Your task to perform on an android device: turn on bluetooth scan Image 0: 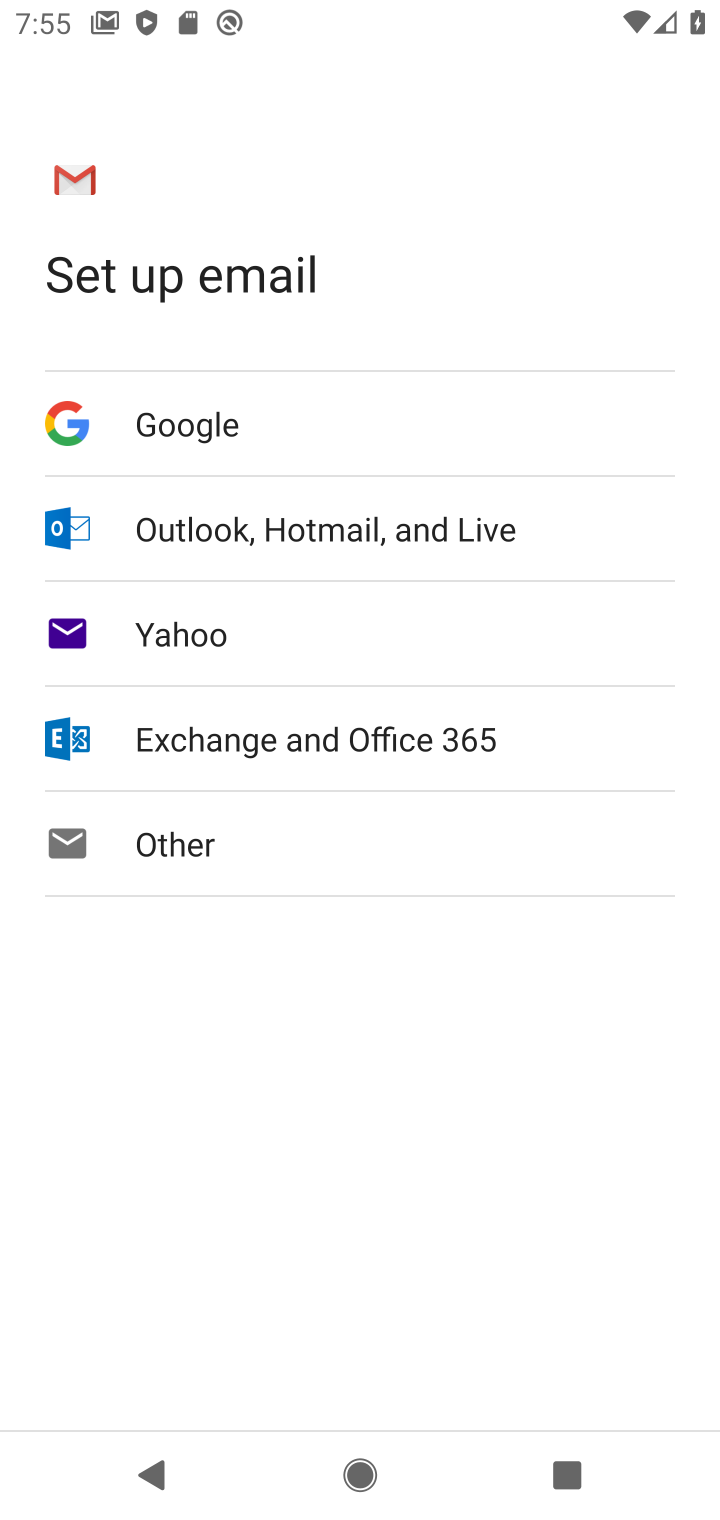
Step 0: press home button
Your task to perform on an android device: turn on bluetooth scan Image 1: 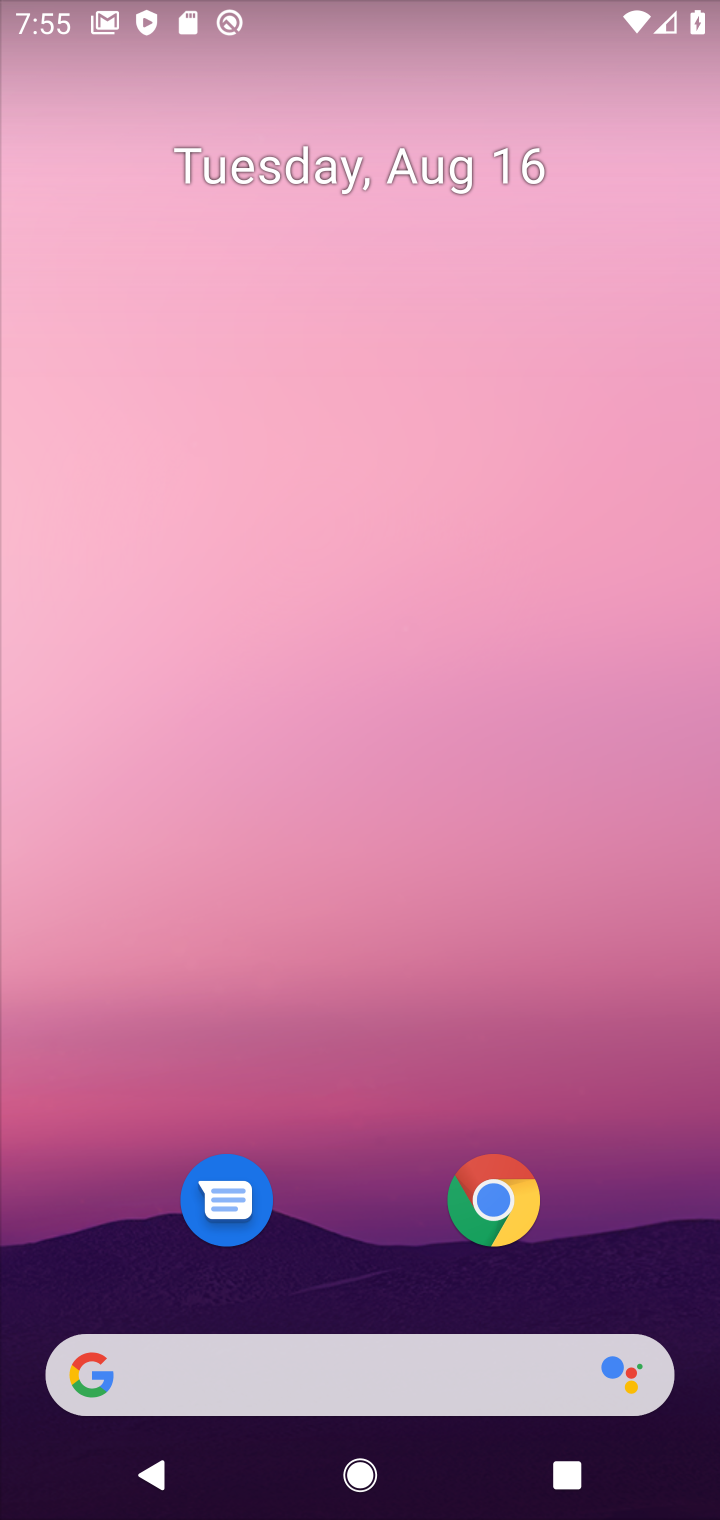
Step 1: drag from (635, 1248) to (574, 117)
Your task to perform on an android device: turn on bluetooth scan Image 2: 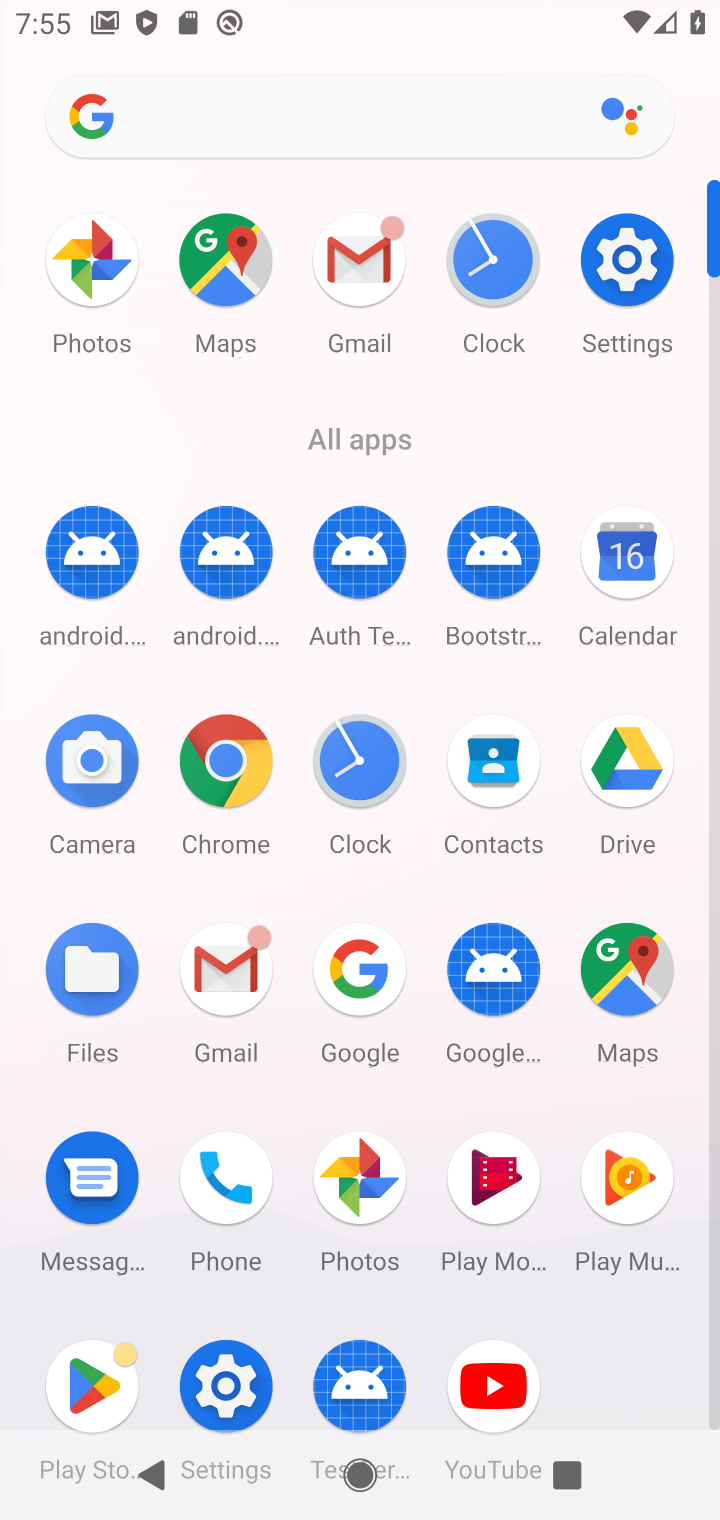
Step 2: click (229, 1385)
Your task to perform on an android device: turn on bluetooth scan Image 3: 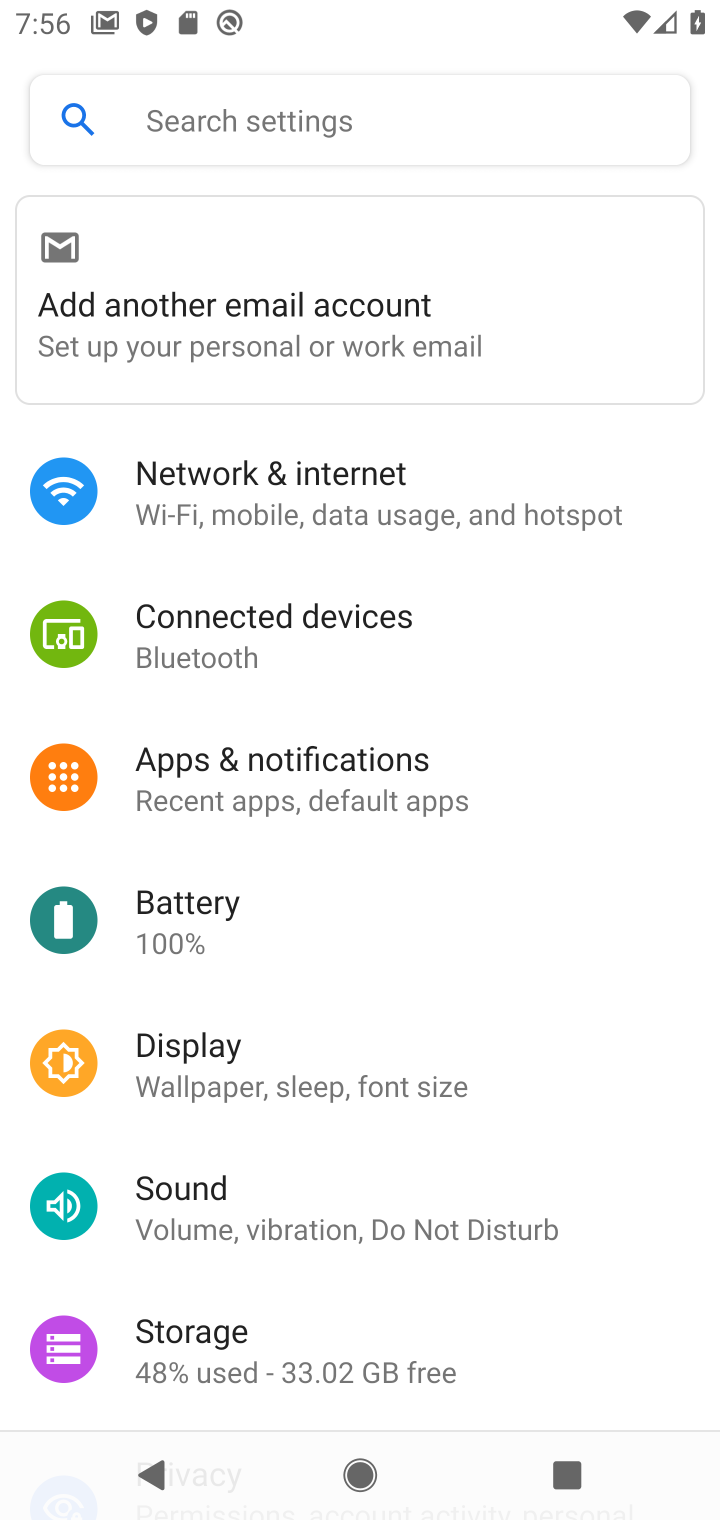
Step 3: drag from (502, 1288) to (492, 457)
Your task to perform on an android device: turn on bluetooth scan Image 4: 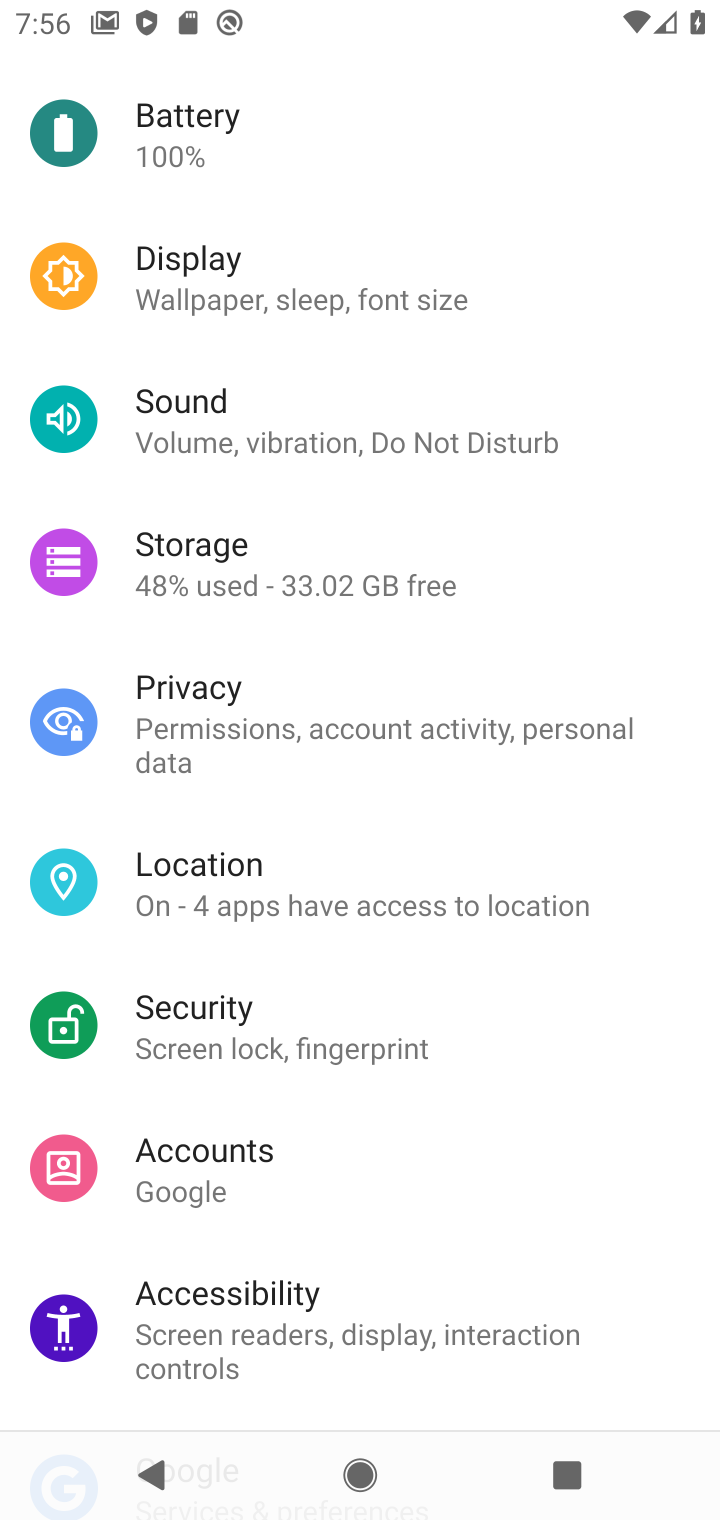
Step 4: click (197, 889)
Your task to perform on an android device: turn on bluetooth scan Image 5: 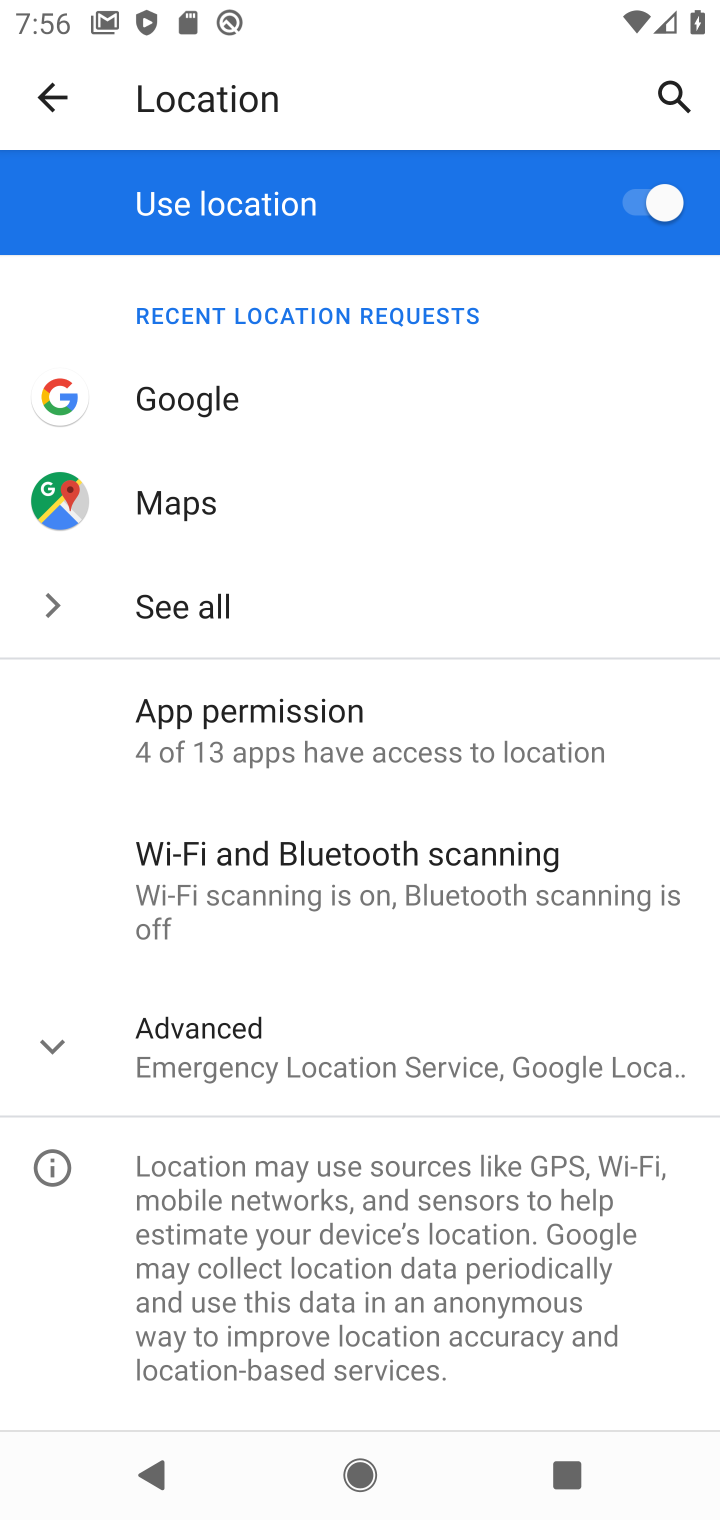
Step 5: click (329, 867)
Your task to perform on an android device: turn on bluetooth scan Image 6: 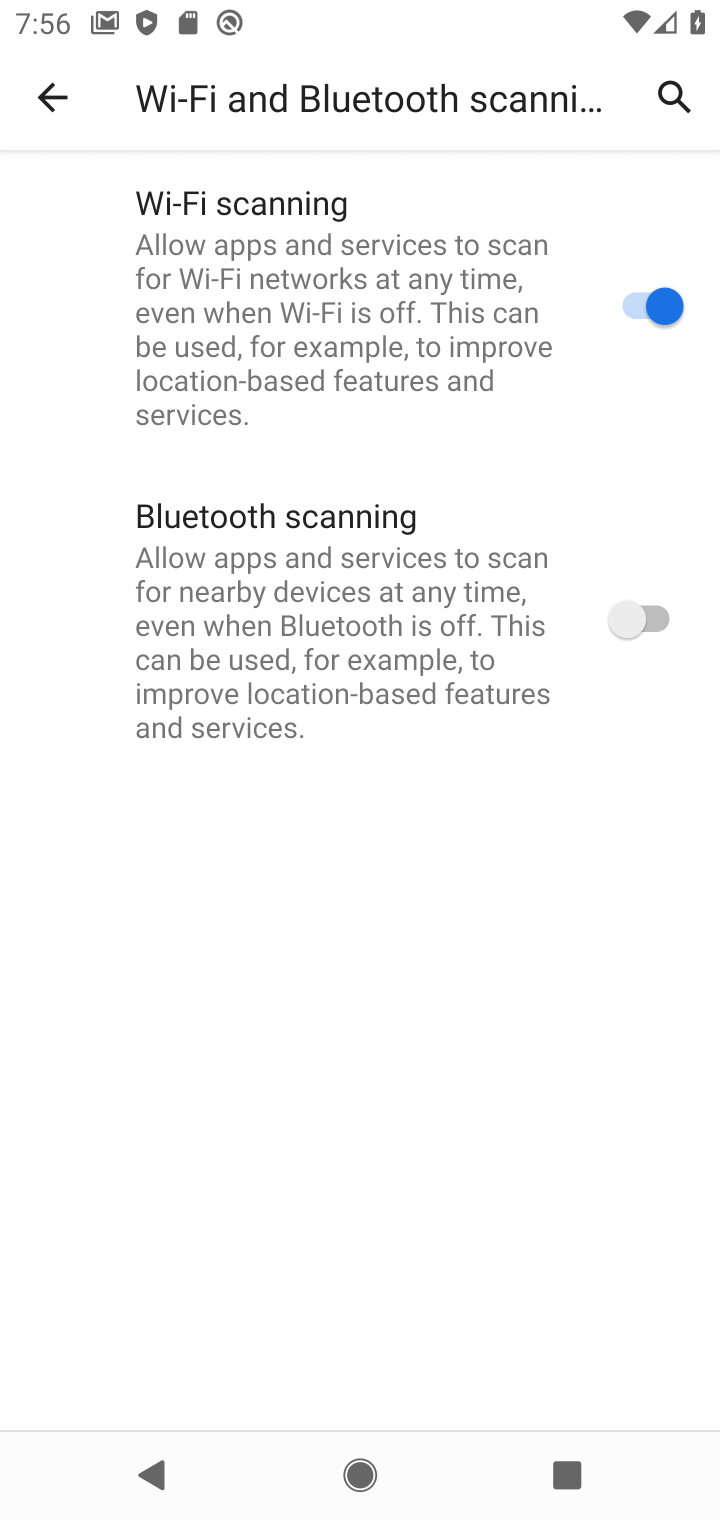
Step 6: click (654, 619)
Your task to perform on an android device: turn on bluetooth scan Image 7: 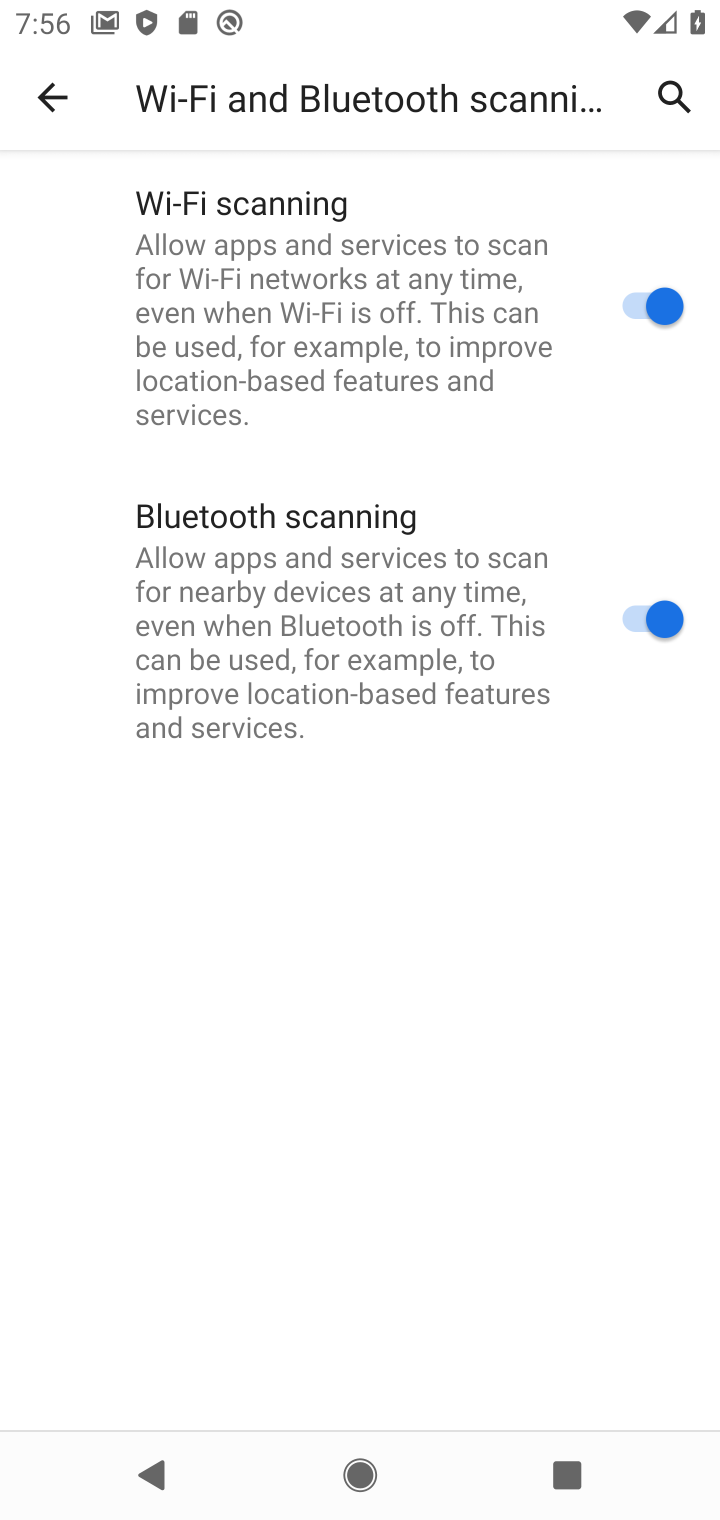
Step 7: task complete